Your task to perform on an android device: turn pop-ups off in chrome Image 0: 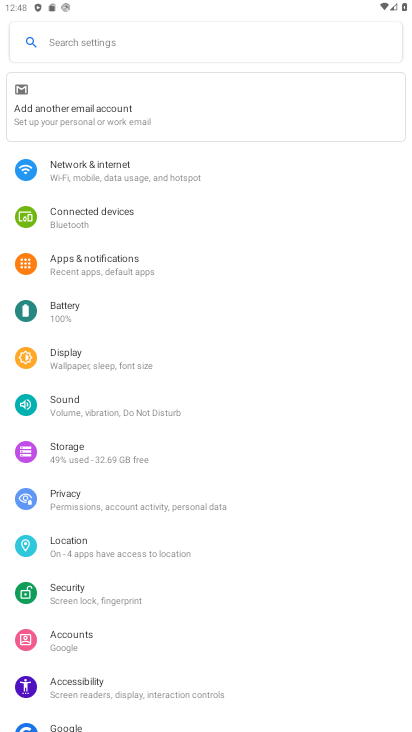
Step 0: press home button
Your task to perform on an android device: turn pop-ups off in chrome Image 1: 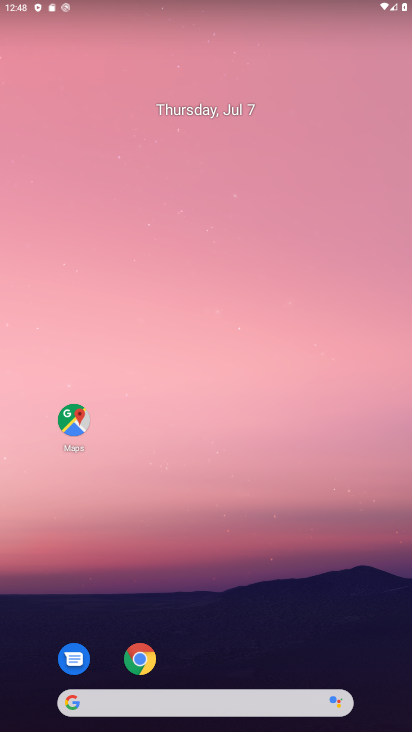
Step 1: click (142, 664)
Your task to perform on an android device: turn pop-ups off in chrome Image 2: 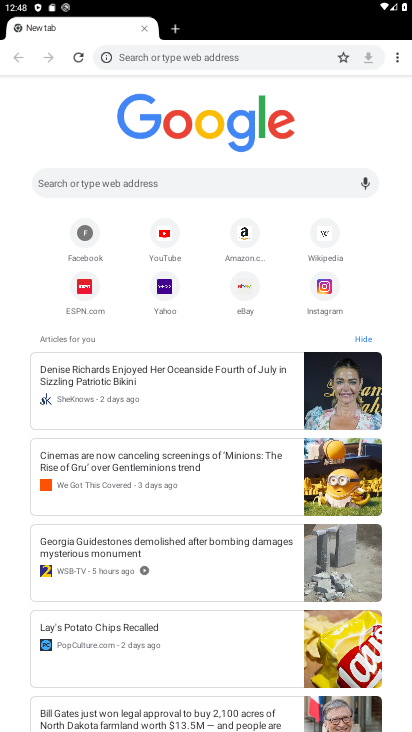
Step 2: drag from (396, 56) to (322, 249)
Your task to perform on an android device: turn pop-ups off in chrome Image 3: 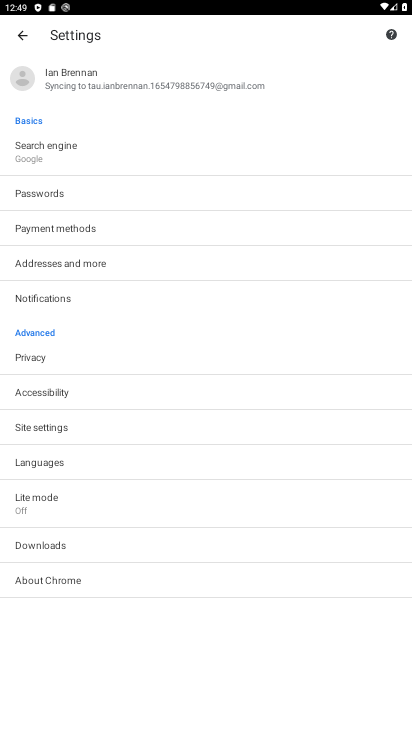
Step 3: click (57, 430)
Your task to perform on an android device: turn pop-ups off in chrome Image 4: 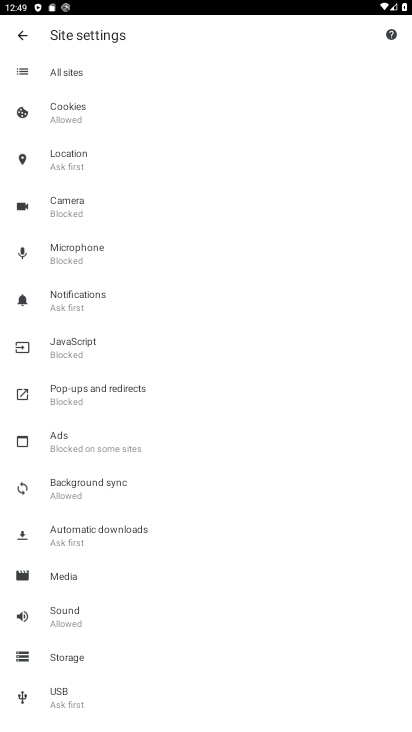
Step 4: click (137, 403)
Your task to perform on an android device: turn pop-ups off in chrome Image 5: 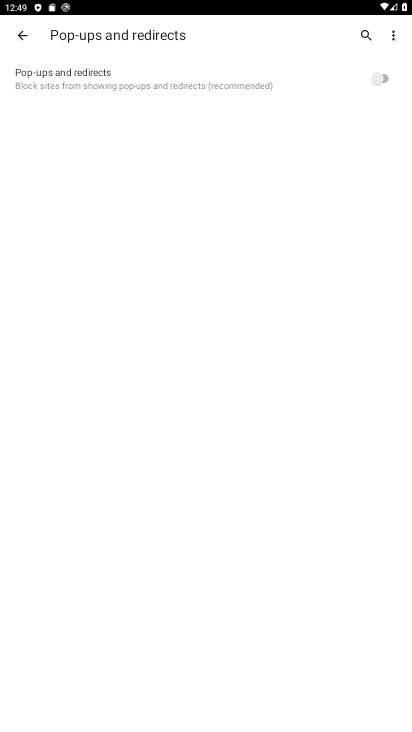
Step 5: task complete